Your task to perform on an android device: turn vacation reply on in the gmail app Image 0: 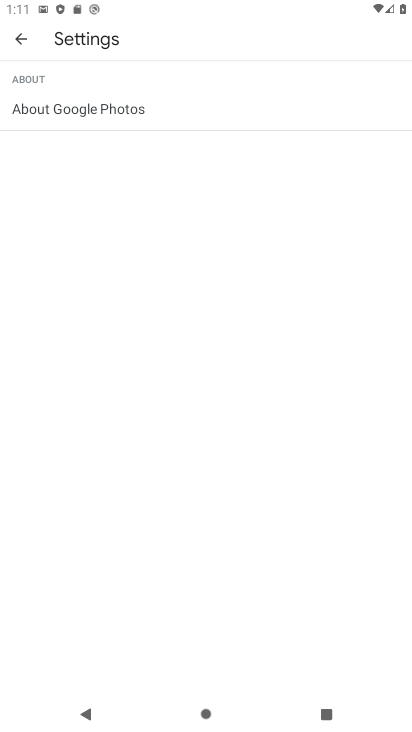
Step 0: press home button
Your task to perform on an android device: turn vacation reply on in the gmail app Image 1: 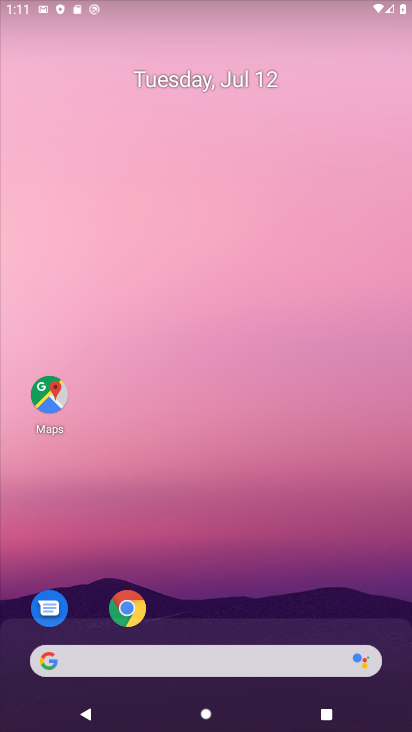
Step 1: drag from (233, 609) to (306, 18)
Your task to perform on an android device: turn vacation reply on in the gmail app Image 2: 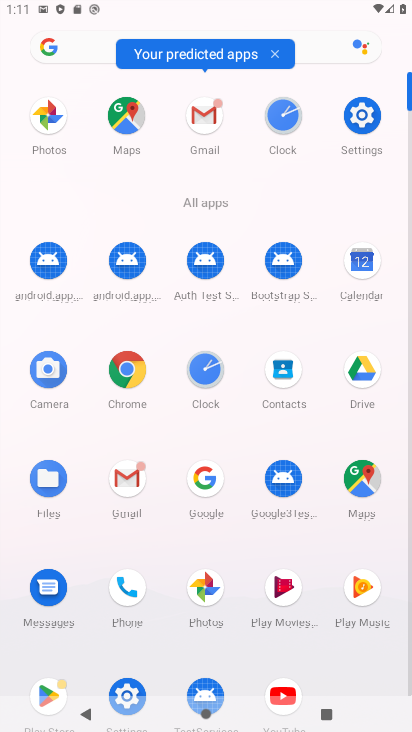
Step 2: click (117, 478)
Your task to perform on an android device: turn vacation reply on in the gmail app Image 3: 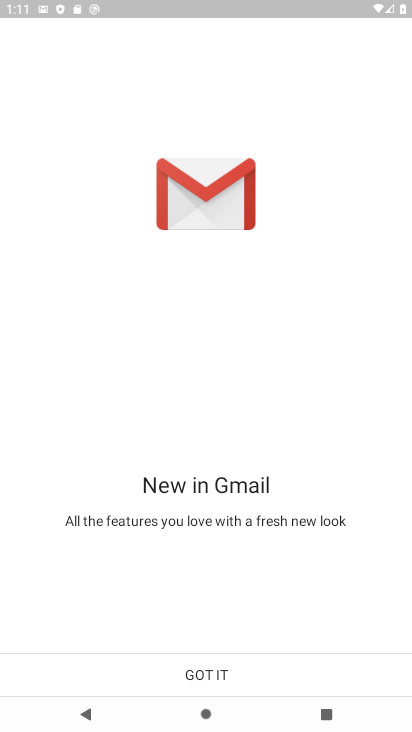
Step 3: click (262, 666)
Your task to perform on an android device: turn vacation reply on in the gmail app Image 4: 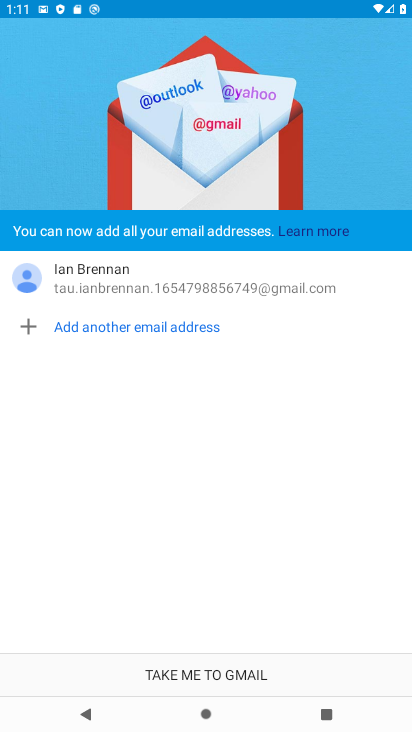
Step 4: click (261, 665)
Your task to perform on an android device: turn vacation reply on in the gmail app Image 5: 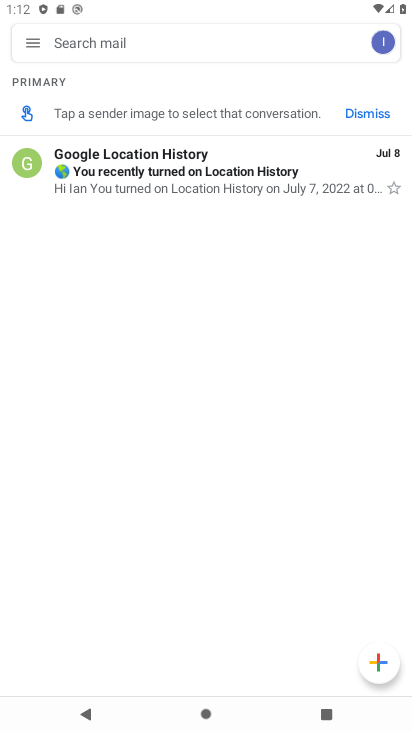
Step 5: click (35, 46)
Your task to perform on an android device: turn vacation reply on in the gmail app Image 6: 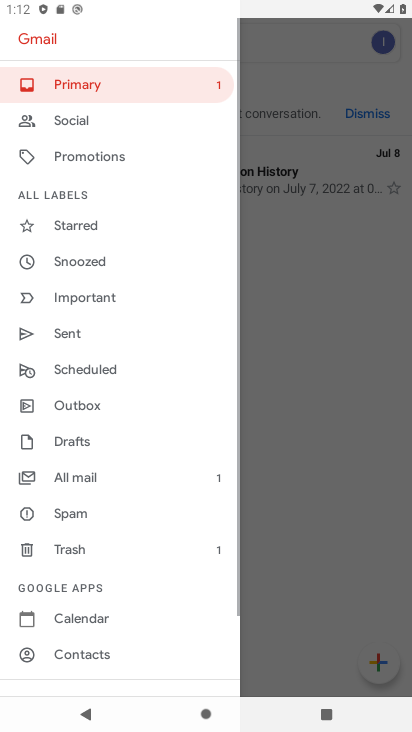
Step 6: drag from (117, 679) to (96, 247)
Your task to perform on an android device: turn vacation reply on in the gmail app Image 7: 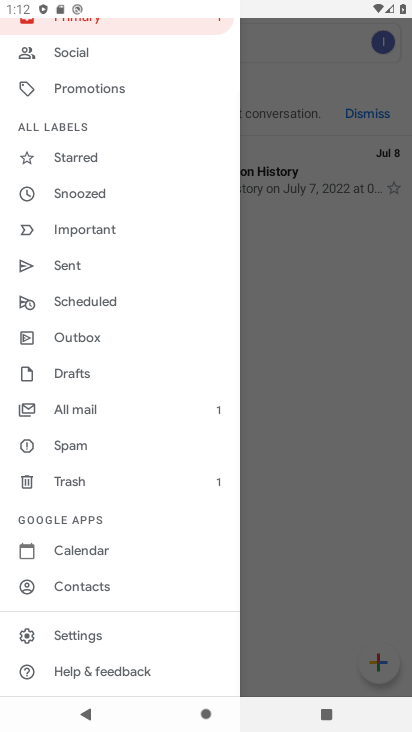
Step 7: click (64, 641)
Your task to perform on an android device: turn vacation reply on in the gmail app Image 8: 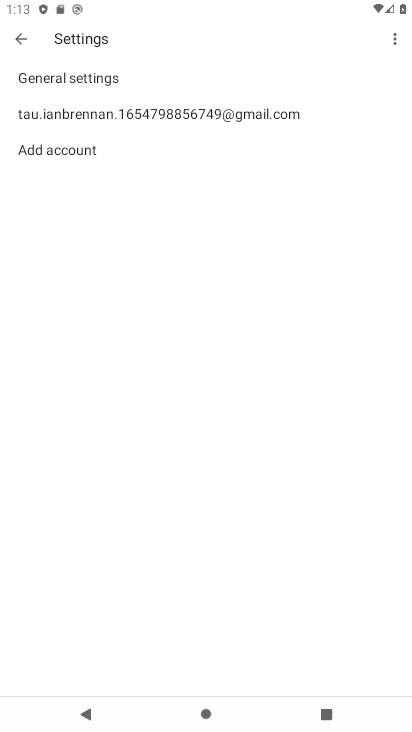
Step 8: click (59, 116)
Your task to perform on an android device: turn vacation reply on in the gmail app Image 9: 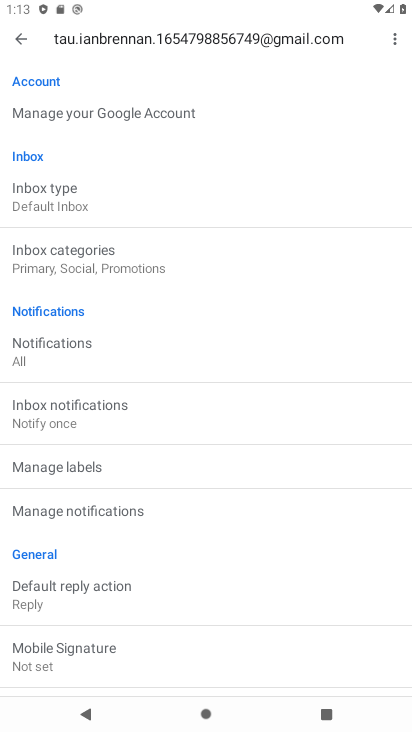
Step 9: drag from (95, 564) to (101, 279)
Your task to perform on an android device: turn vacation reply on in the gmail app Image 10: 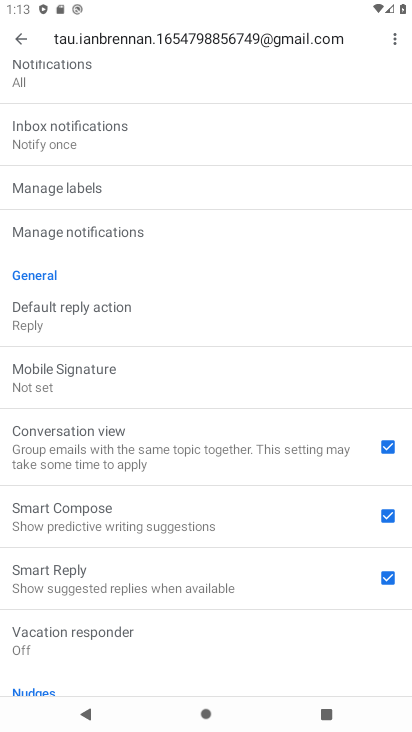
Step 10: click (100, 632)
Your task to perform on an android device: turn vacation reply on in the gmail app Image 11: 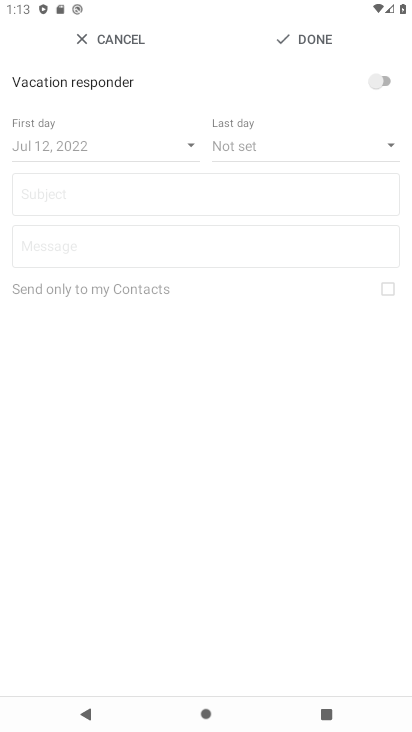
Step 11: click (146, 193)
Your task to perform on an android device: turn vacation reply on in the gmail app Image 12: 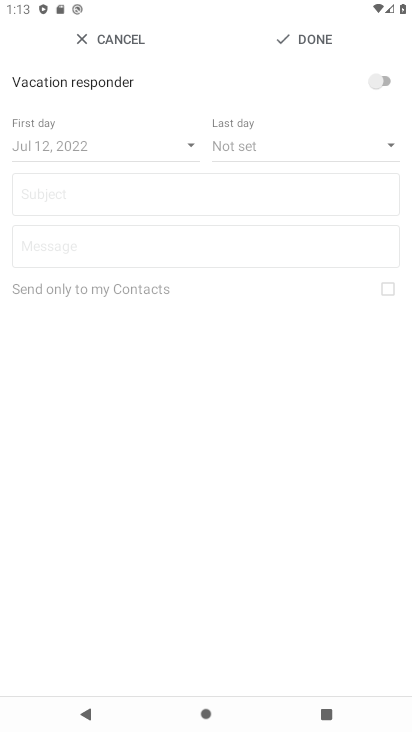
Step 12: type "ggg"
Your task to perform on an android device: turn vacation reply on in the gmail app Image 13: 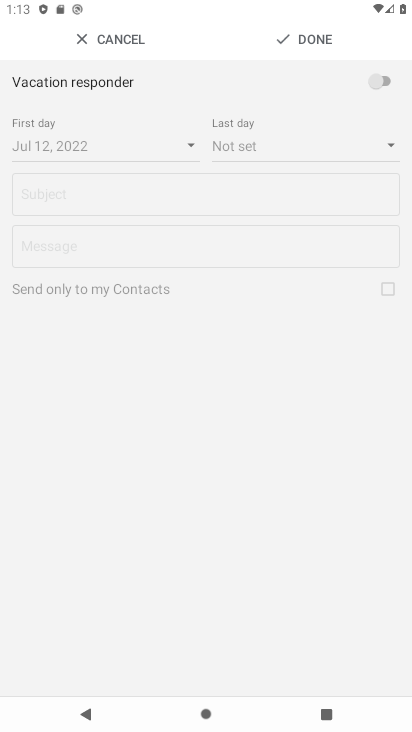
Step 13: type ""
Your task to perform on an android device: turn vacation reply on in the gmail app Image 14: 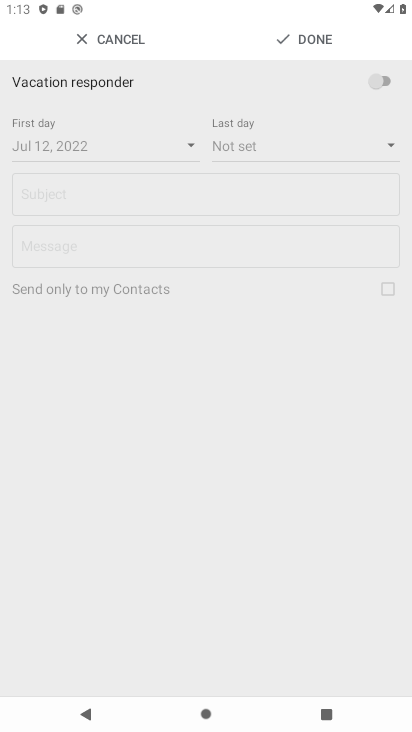
Step 14: click (80, 210)
Your task to perform on an android device: turn vacation reply on in the gmail app Image 15: 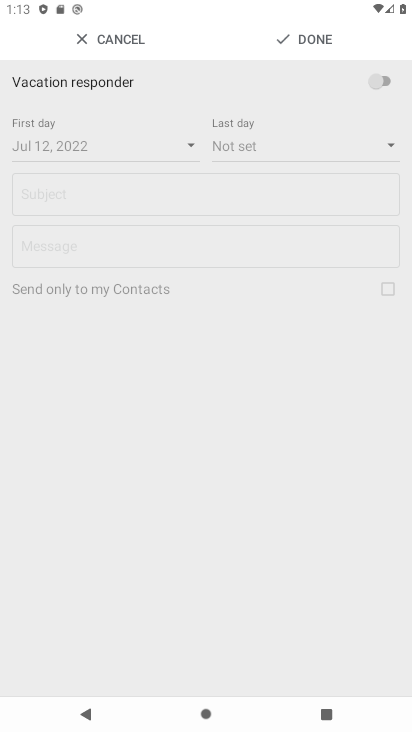
Step 15: click (382, 81)
Your task to perform on an android device: turn vacation reply on in the gmail app Image 16: 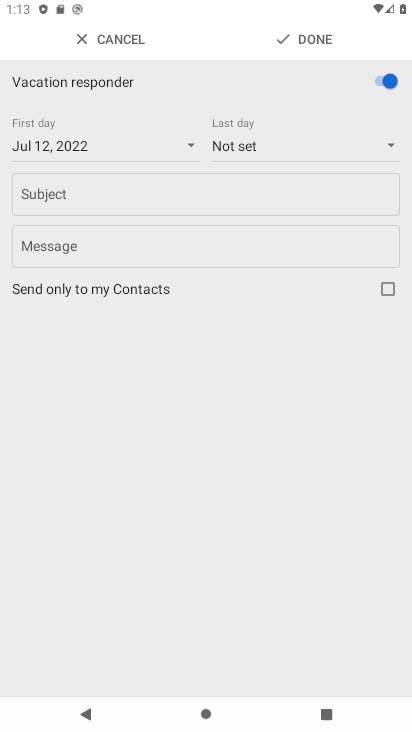
Step 16: click (108, 204)
Your task to perform on an android device: turn vacation reply on in the gmail app Image 17: 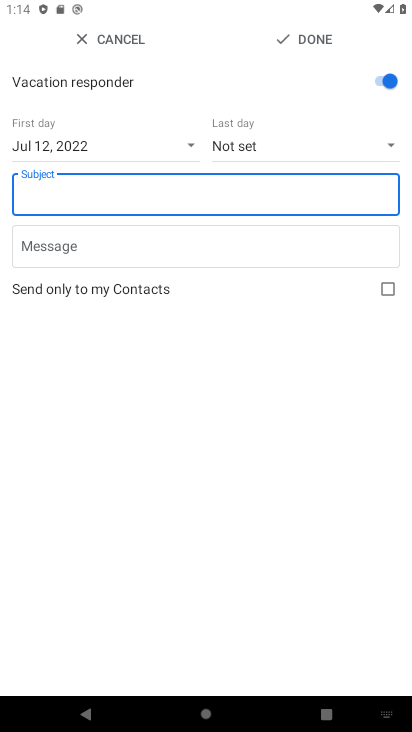
Step 17: type "dgg"
Your task to perform on an android device: turn vacation reply on in the gmail app Image 18: 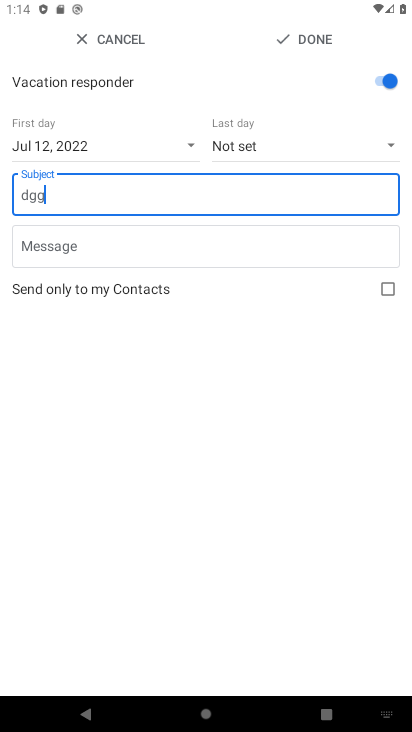
Step 18: type ""
Your task to perform on an android device: turn vacation reply on in the gmail app Image 19: 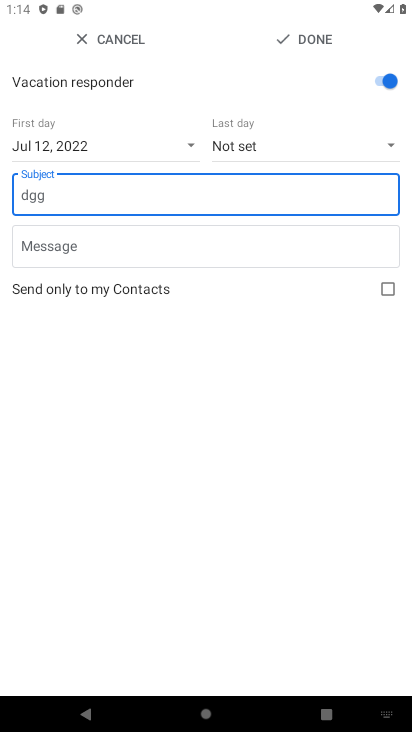
Step 19: click (284, 35)
Your task to perform on an android device: turn vacation reply on in the gmail app Image 20: 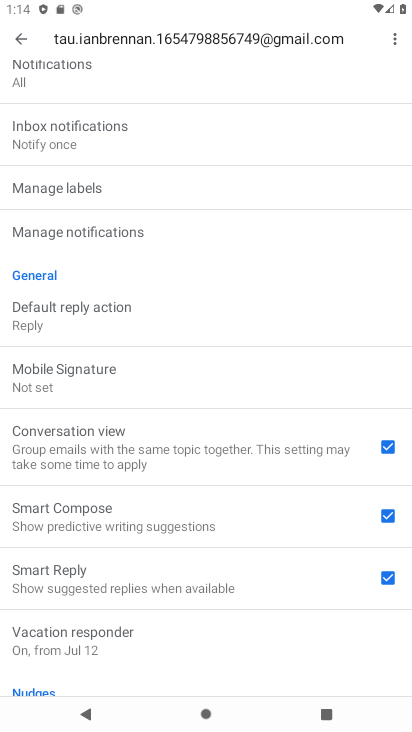
Step 20: task complete